Your task to perform on an android device: Open CNN.com Image 0: 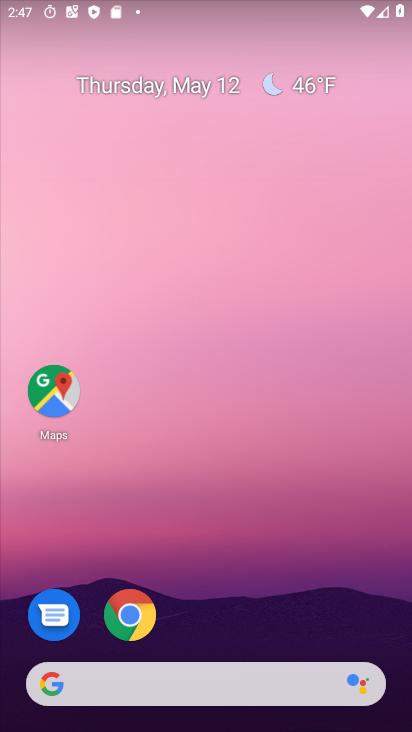
Step 0: drag from (211, 634) to (279, 125)
Your task to perform on an android device: Open CNN.com Image 1: 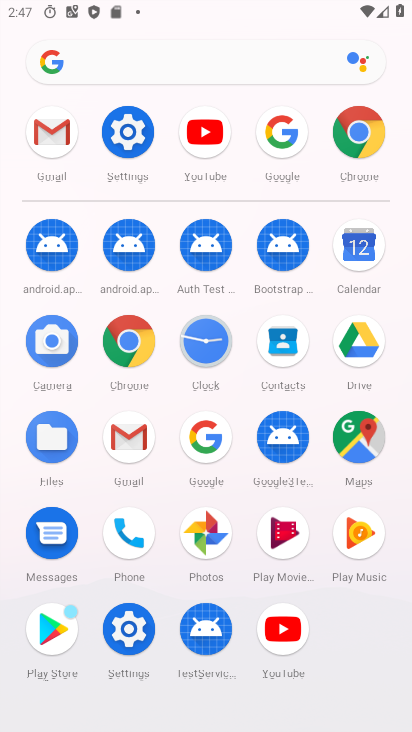
Step 1: click (207, 437)
Your task to perform on an android device: Open CNN.com Image 2: 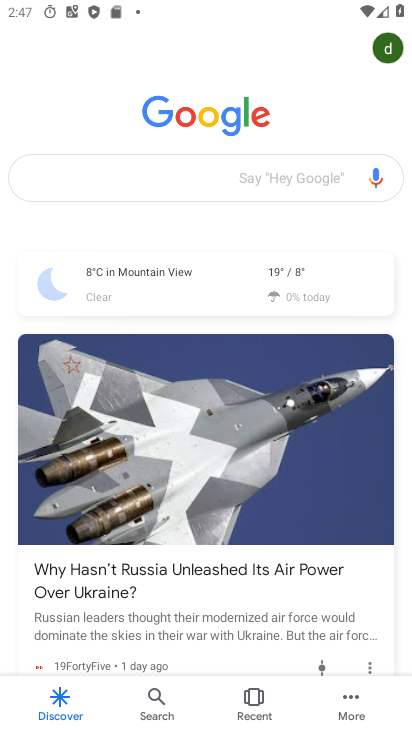
Step 2: click (154, 163)
Your task to perform on an android device: Open CNN.com Image 3: 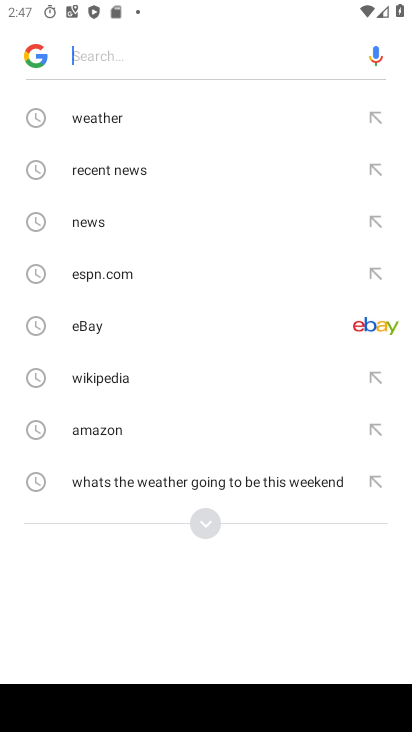
Step 3: type "cnn.com"
Your task to perform on an android device: Open CNN.com Image 4: 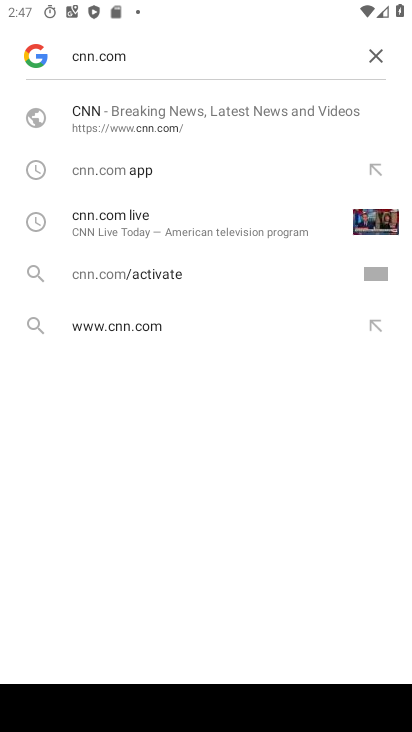
Step 4: click (162, 123)
Your task to perform on an android device: Open CNN.com Image 5: 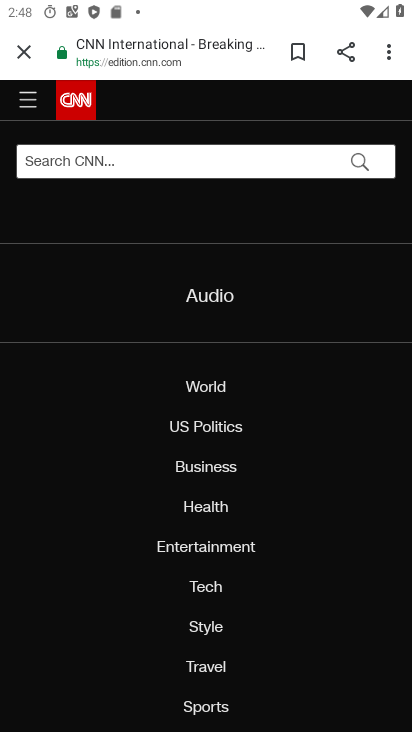
Step 5: task complete